Your task to perform on an android device: visit the assistant section in the google photos Image 0: 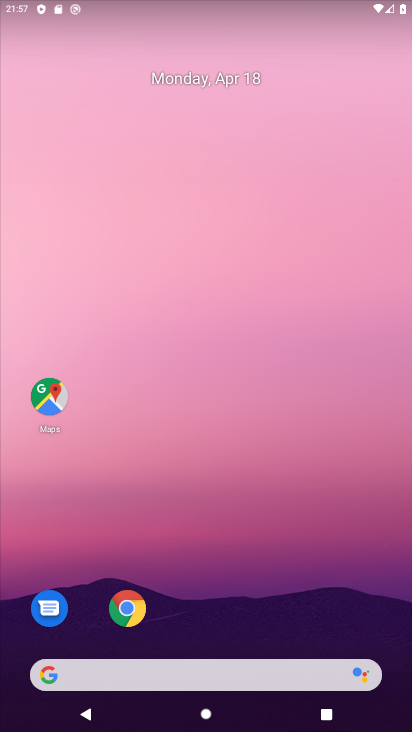
Step 0: drag from (275, 539) to (247, 113)
Your task to perform on an android device: visit the assistant section in the google photos Image 1: 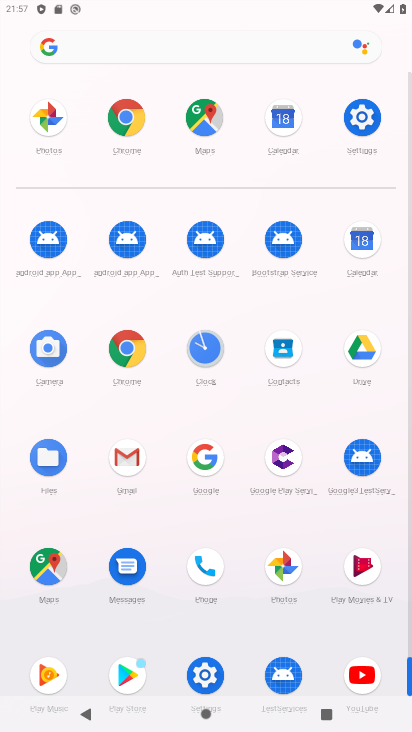
Step 1: click (282, 569)
Your task to perform on an android device: visit the assistant section in the google photos Image 2: 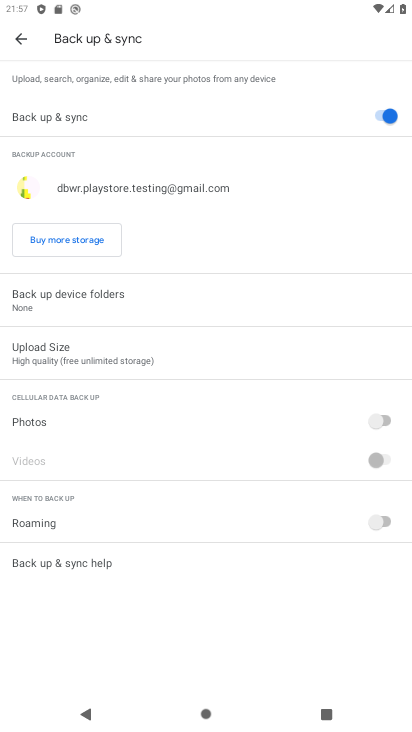
Step 2: click (21, 39)
Your task to perform on an android device: visit the assistant section in the google photos Image 3: 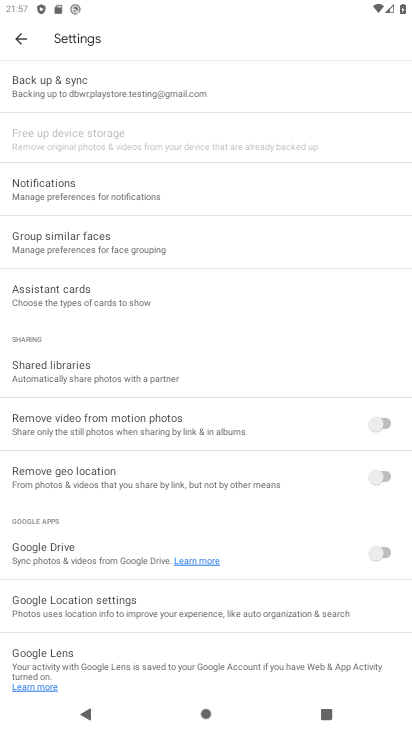
Step 3: press back button
Your task to perform on an android device: visit the assistant section in the google photos Image 4: 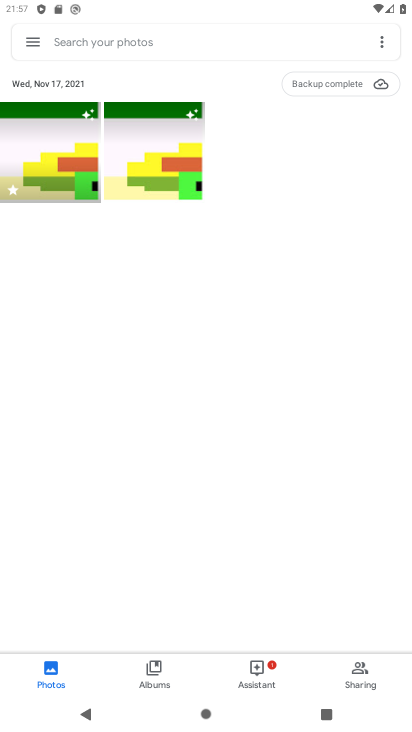
Step 4: click (256, 675)
Your task to perform on an android device: visit the assistant section in the google photos Image 5: 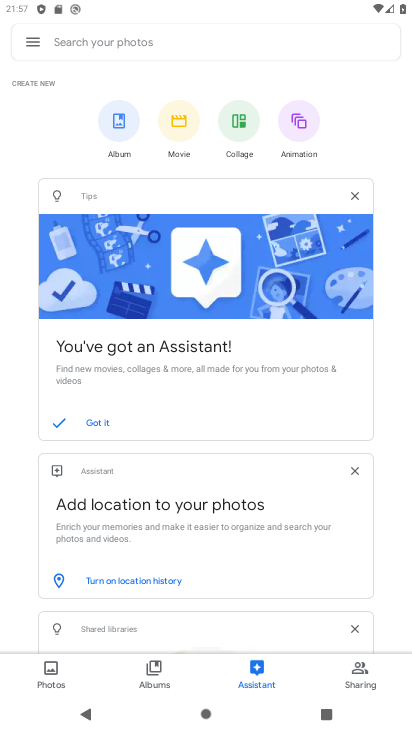
Step 5: task complete